Your task to perform on an android device: Search for vegetarian restaurants on Maps Image 0: 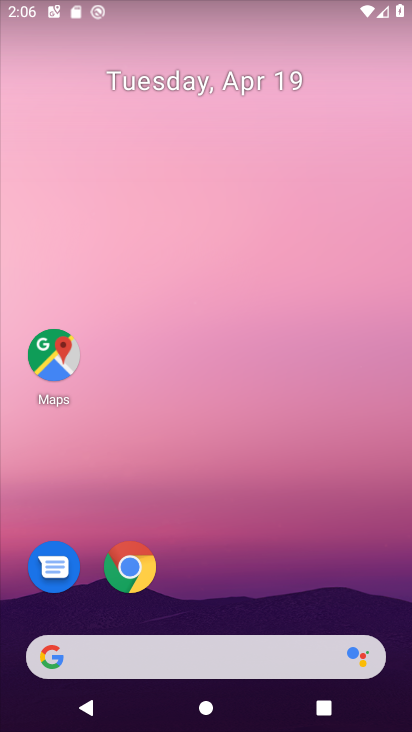
Step 0: click (61, 357)
Your task to perform on an android device: Search for vegetarian restaurants on Maps Image 1: 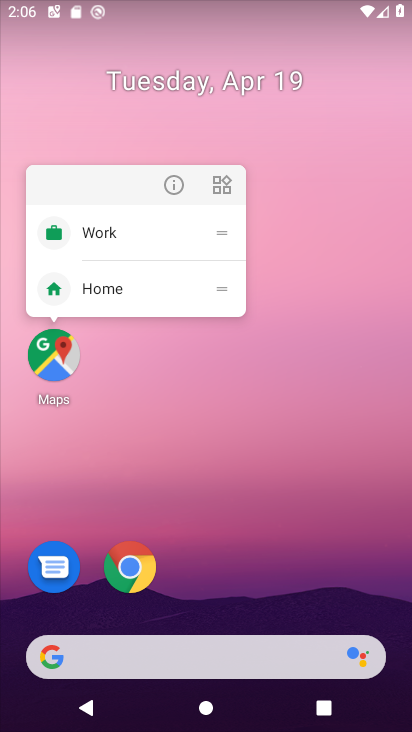
Step 1: click (47, 355)
Your task to perform on an android device: Search for vegetarian restaurants on Maps Image 2: 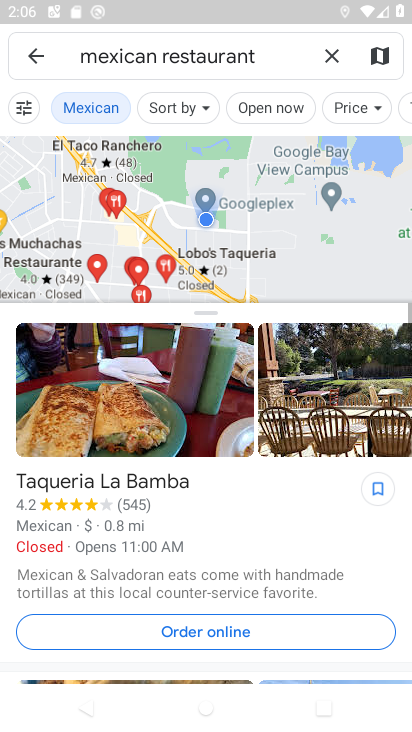
Step 2: click (328, 57)
Your task to perform on an android device: Search for vegetarian restaurants on Maps Image 3: 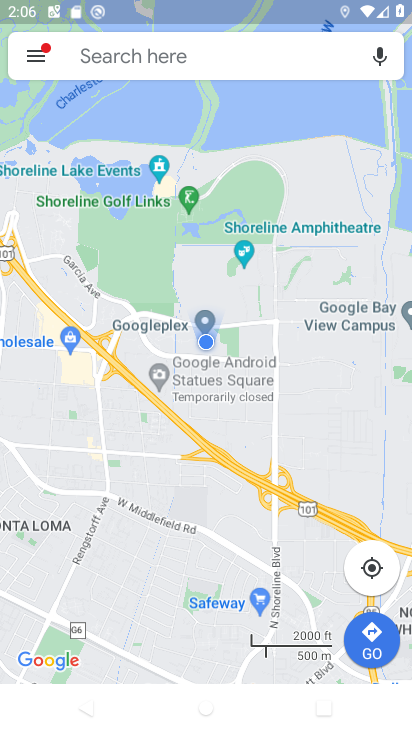
Step 3: click (206, 48)
Your task to perform on an android device: Search for vegetarian restaurants on Maps Image 4: 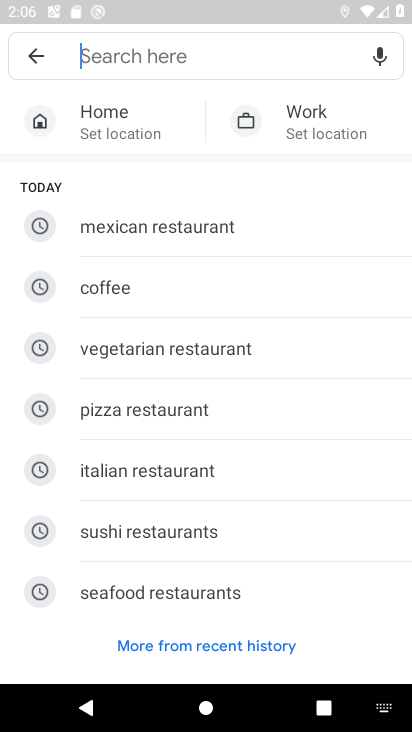
Step 4: click (162, 344)
Your task to perform on an android device: Search for vegetarian restaurants on Maps Image 5: 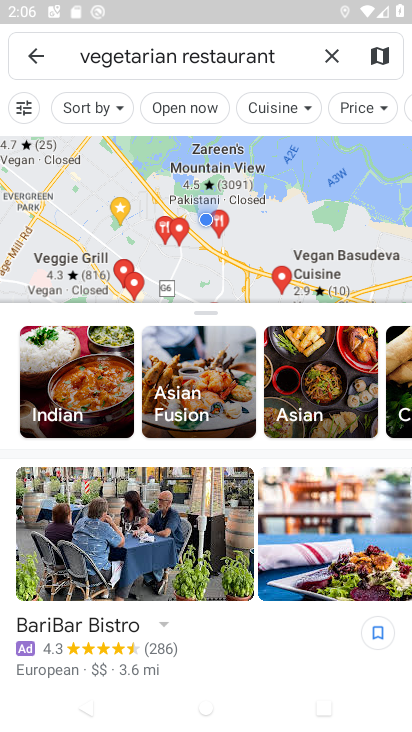
Step 5: task complete